Your task to perform on an android device: Turn off the flashlight Image 0: 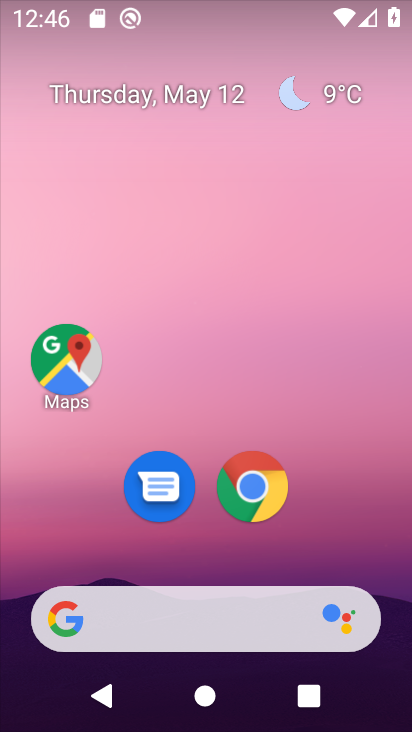
Step 0: drag from (261, 5) to (321, 332)
Your task to perform on an android device: Turn off the flashlight Image 1: 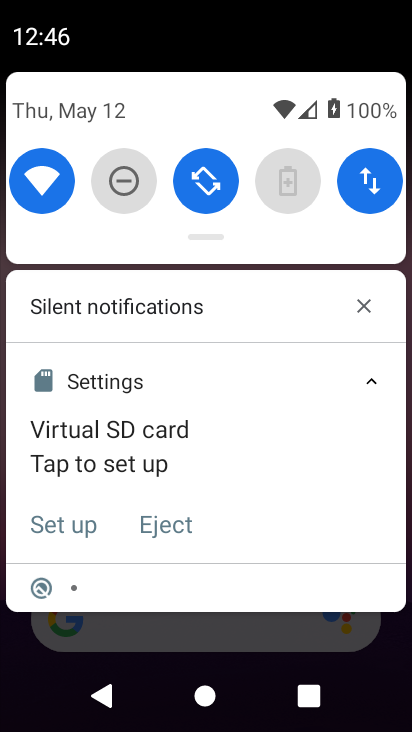
Step 1: drag from (223, 223) to (283, 476)
Your task to perform on an android device: Turn off the flashlight Image 2: 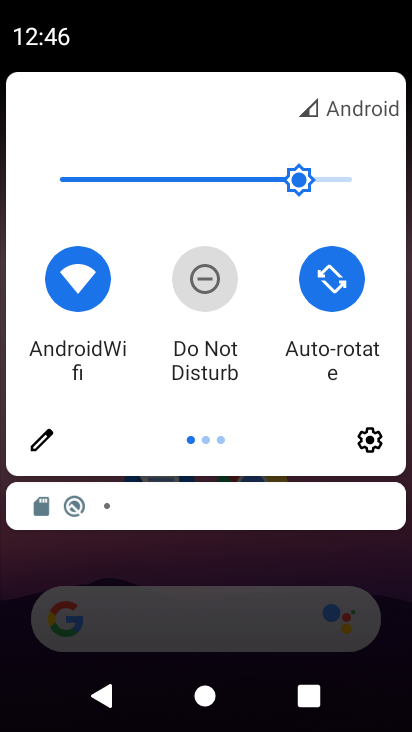
Step 2: drag from (390, 343) to (20, 354)
Your task to perform on an android device: Turn off the flashlight Image 3: 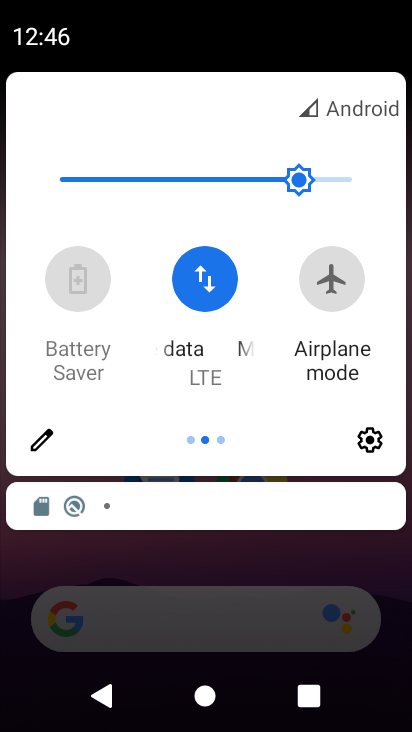
Step 3: drag from (376, 348) to (0, 379)
Your task to perform on an android device: Turn off the flashlight Image 4: 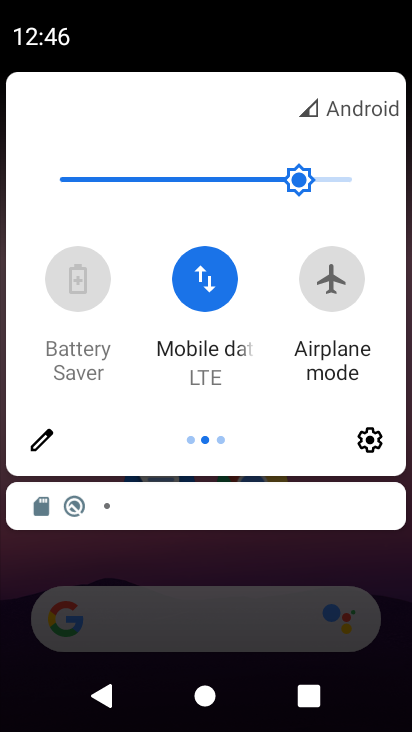
Step 4: drag from (369, 358) to (107, 381)
Your task to perform on an android device: Turn off the flashlight Image 5: 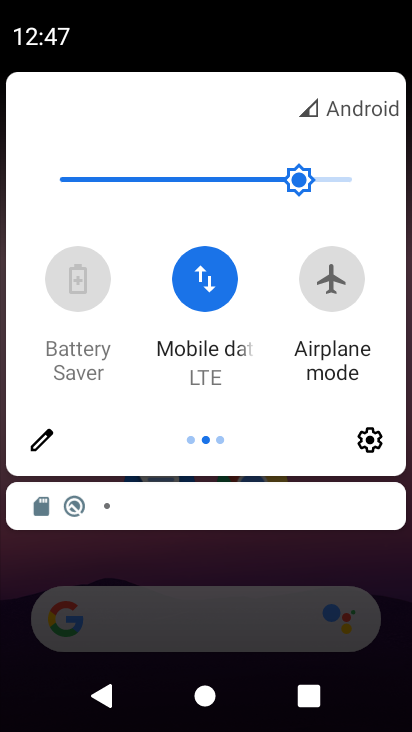
Step 5: drag from (363, 365) to (10, 410)
Your task to perform on an android device: Turn off the flashlight Image 6: 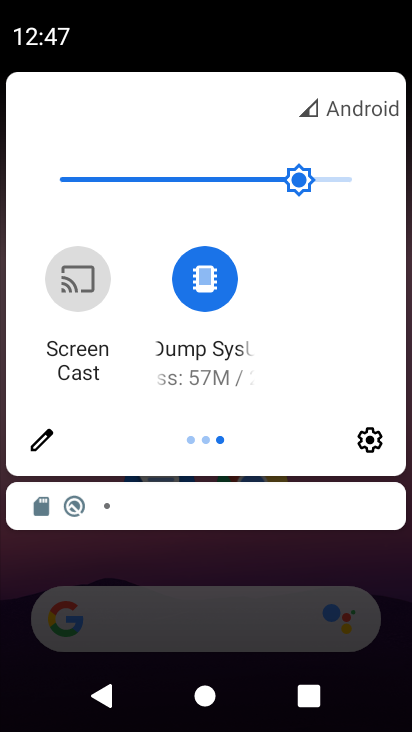
Step 6: click (32, 448)
Your task to perform on an android device: Turn off the flashlight Image 7: 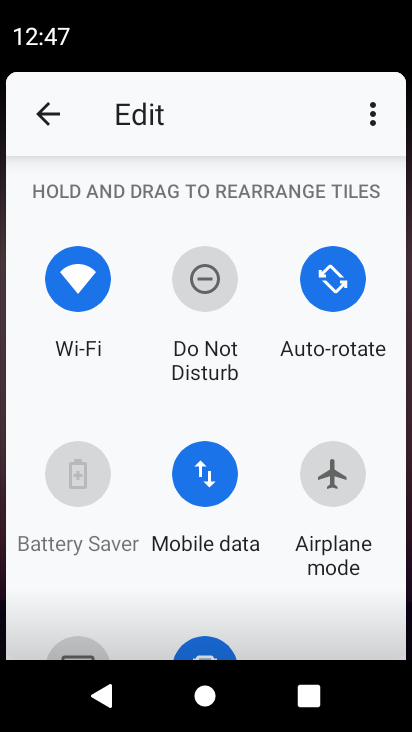
Step 7: task complete